Your task to perform on an android device: set the timer Image 0: 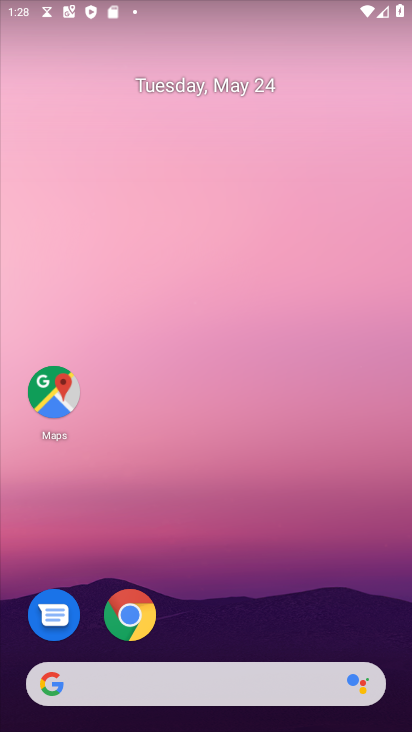
Step 0: drag from (210, 640) to (303, 42)
Your task to perform on an android device: set the timer Image 1: 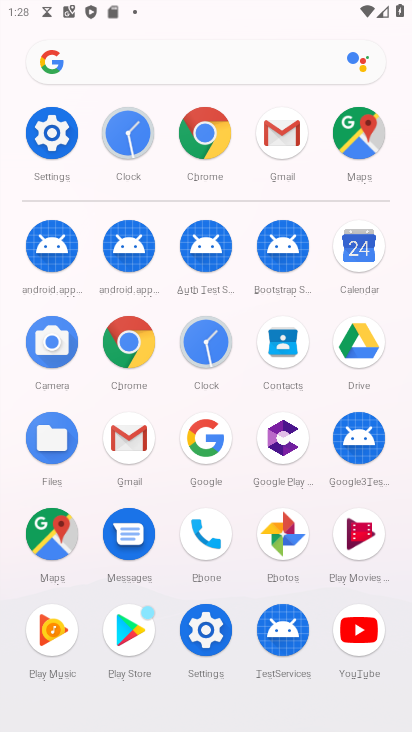
Step 1: click (205, 333)
Your task to perform on an android device: set the timer Image 2: 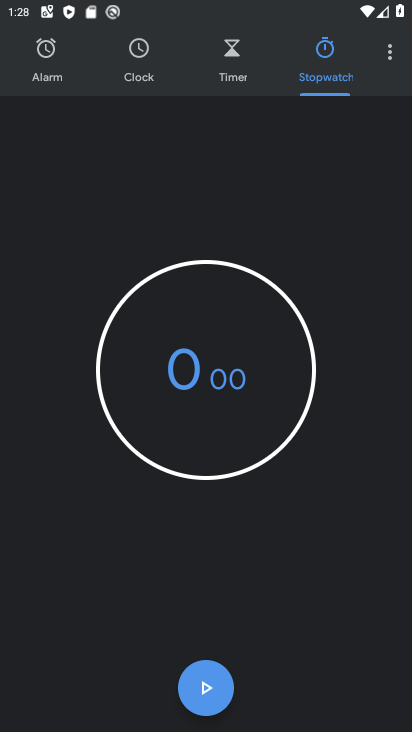
Step 2: click (237, 49)
Your task to perform on an android device: set the timer Image 3: 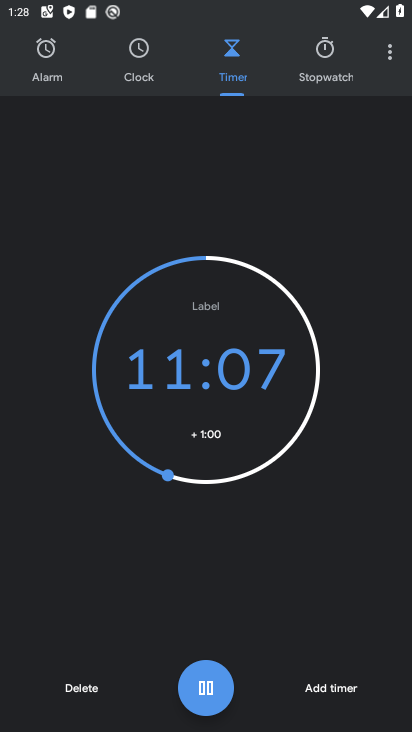
Step 3: task complete